Your task to perform on an android device: toggle priority inbox in the gmail app Image 0: 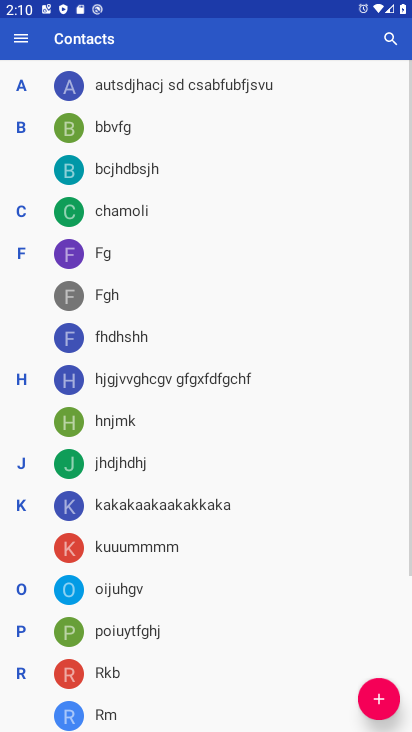
Step 0: press home button
Your task to perform on an android device: toggle priority inbox in the gmail app Image 1: 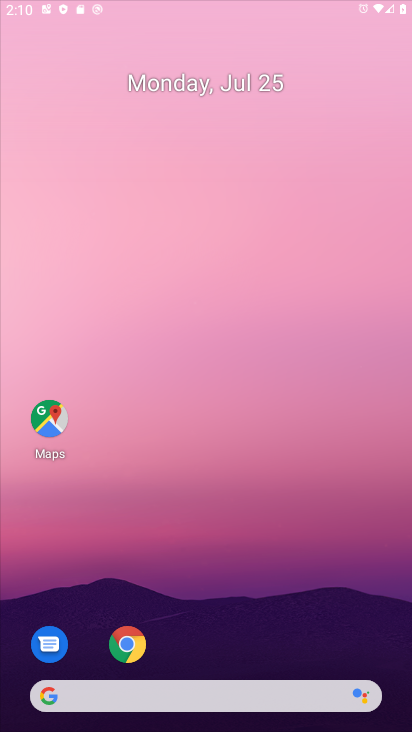
Step 1: drag from (363, 635) to (248, 66)
Your task to perform on an android device: toggle priority inbox in the gmail app Image 2: 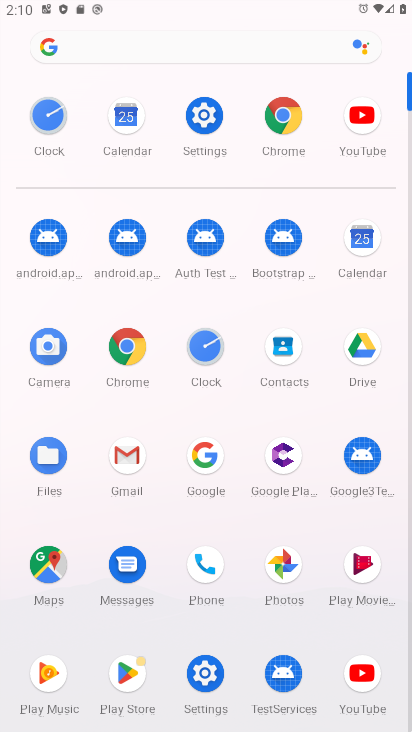
Step 2: click (139, 462)
Your task to perform on an android device: toggle priority inbox in the gmail app Image 3: 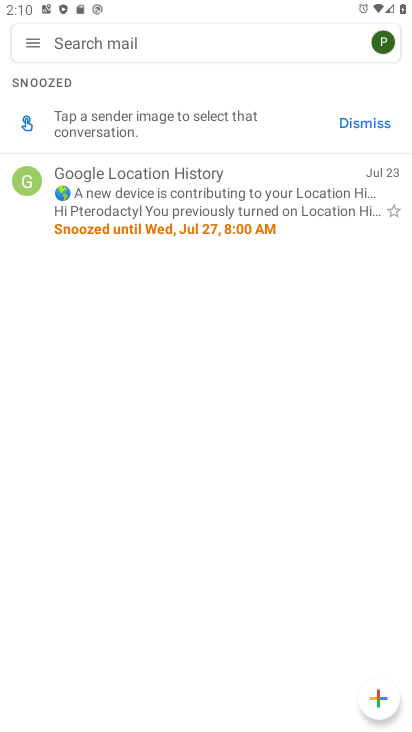
Step 3: click (24, 41)
Your task to perform on an android device: toggle priority inbox in the gmail app Image 4: 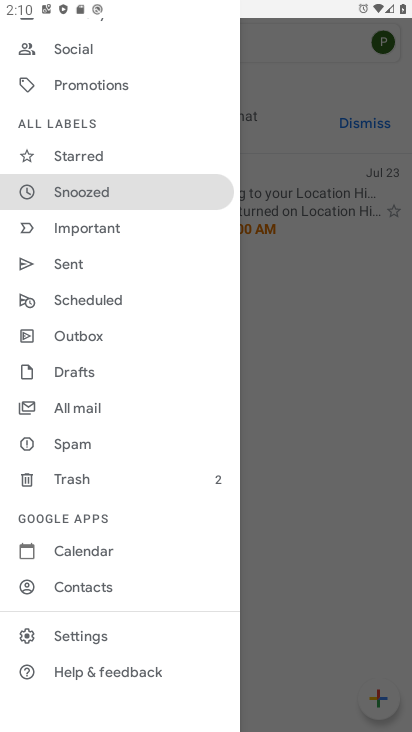
Step 4: click (114, 629)
Your task to perform on an android device: toggle priority inbox in the gmail app Image 5: 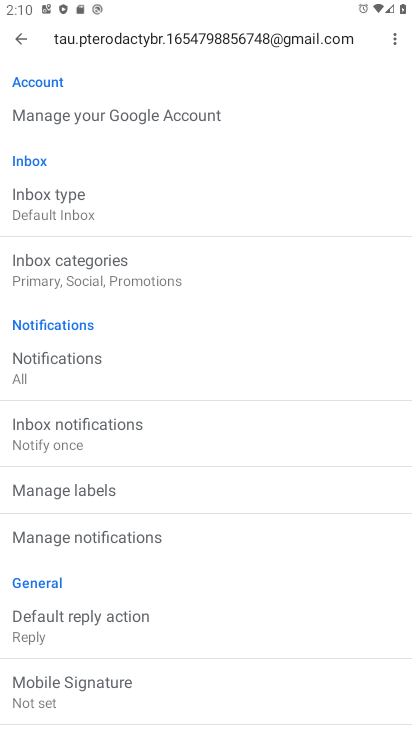
Step 5: click (91, 206)
Your task to perform on an android device: toggle priority inbox in the gmail app Image 6: 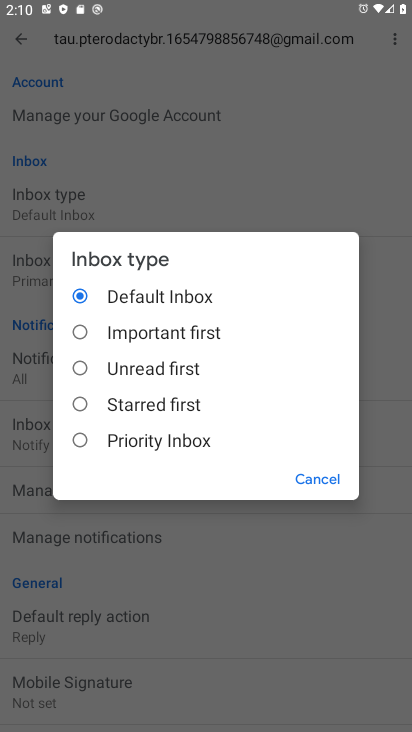
Step 6: task complete